Your task to perform on an android device: Open Reddit.com Image 0: 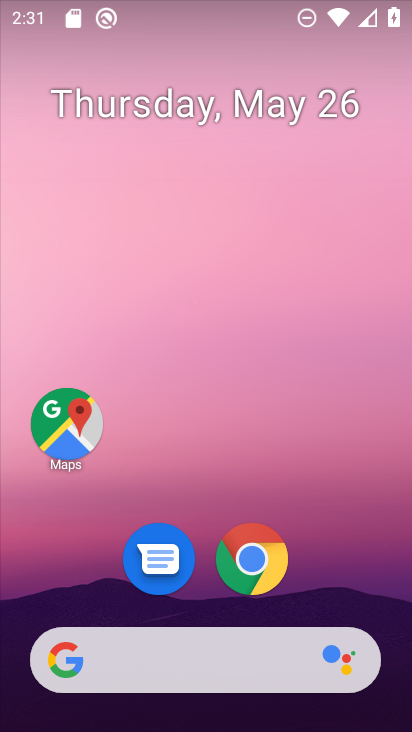
Step 0: click (263, 555)
Your task to perform on an android device: Open Reddit.com Image 1: 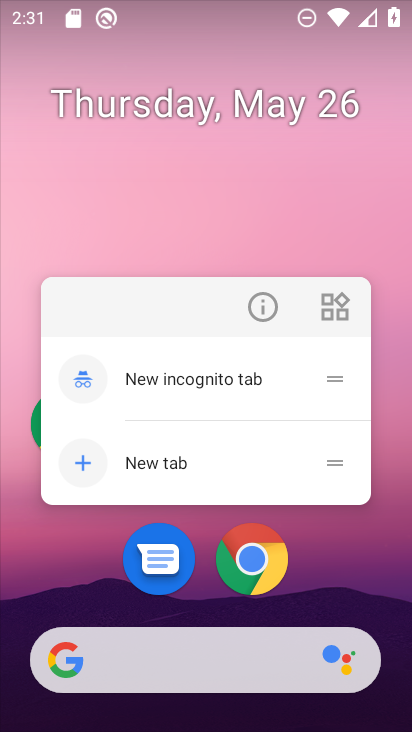
Step 1: click (255, 567)
Your task to perform on an android device: Open Reddit.com Image 2: 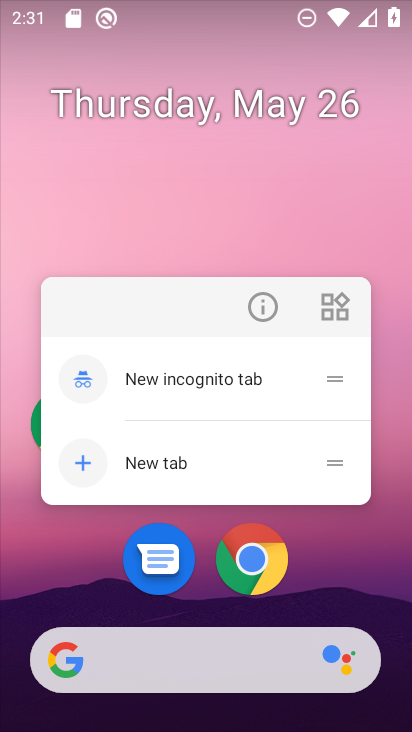
Step 2: click (248, 573)
Your task to perform on an android device: Open Reddit.com Image 3: 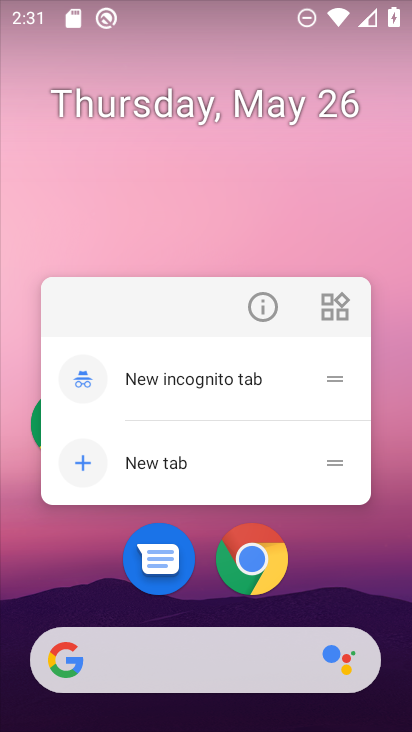
Step 3: click (248, 566)
Your task to perform on an android device: Open Reddit.com Image 4: 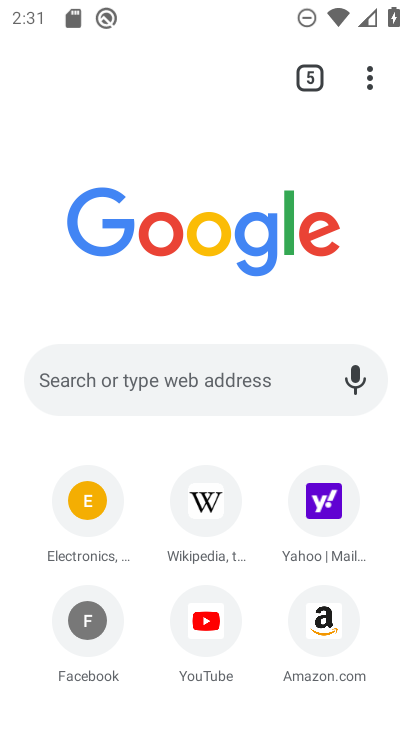
Step 4: click (186, 375)
Your task to perform on an android device: Open Reddit.com Image 5: 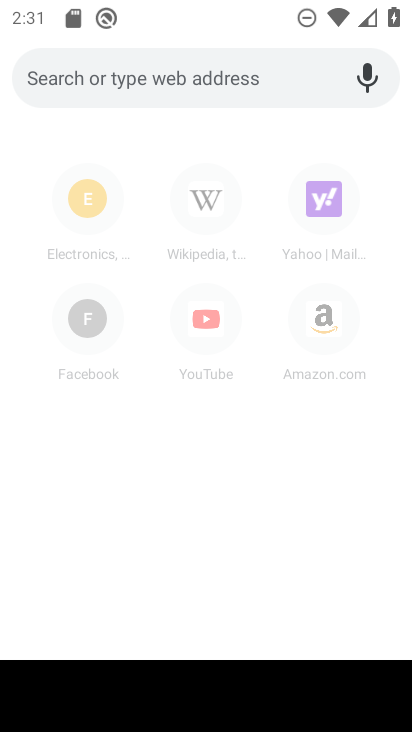
Step 5: type "reddit.com"
Your task to perform on an android device: Open Reddit.com Image 6: 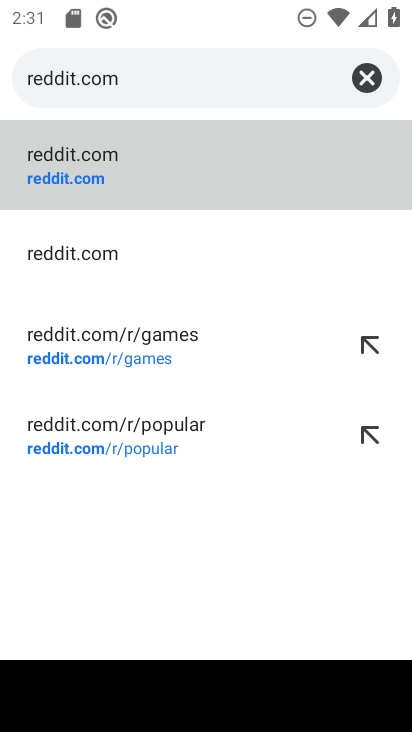
Step 6: click (107, 154)
Your task to perform on an android device: Open Reddit.com Image 7: 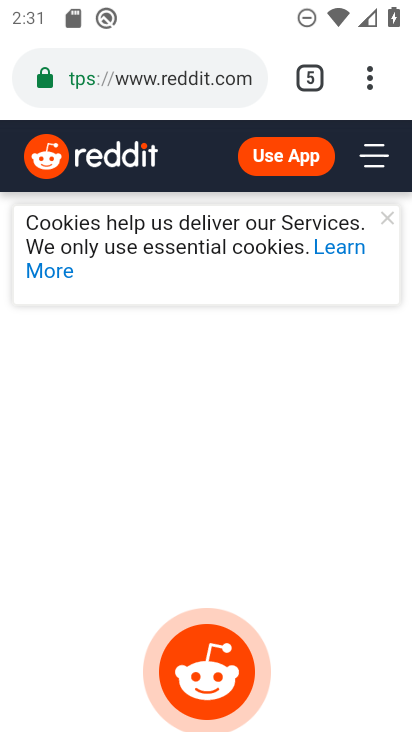
Step 7: task complete